Your task to perform on an android device: Open ESPN.com Image 0: 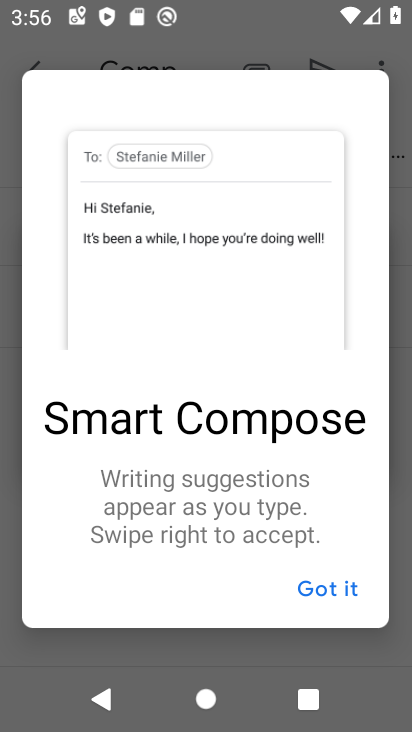
Step 0: press home button
Your task to perform on an android device: Open ESPN.com Image 1: 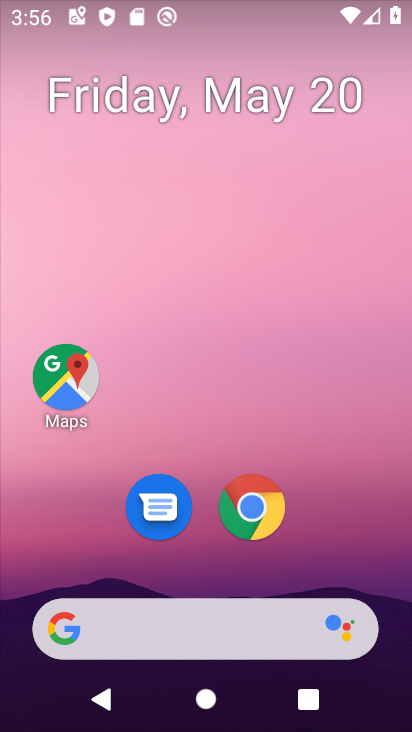
Step 1: click (252, 503)
Your task to perform on an android device: Open ESPN.com Image 2: 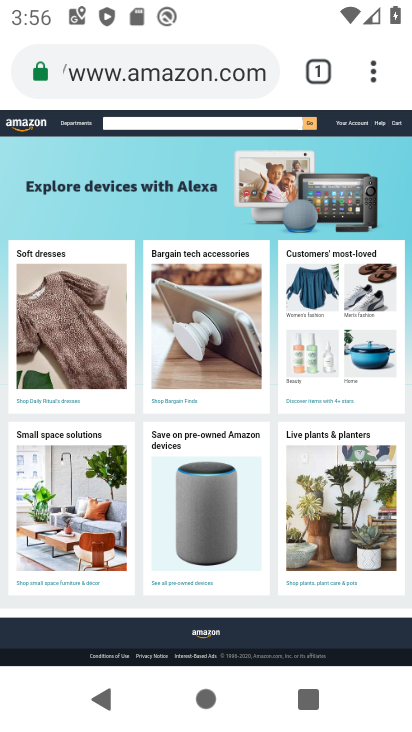
Step 2: click (225, 77)
Your task to perform on an android device: Open ESPN.com Image 3: 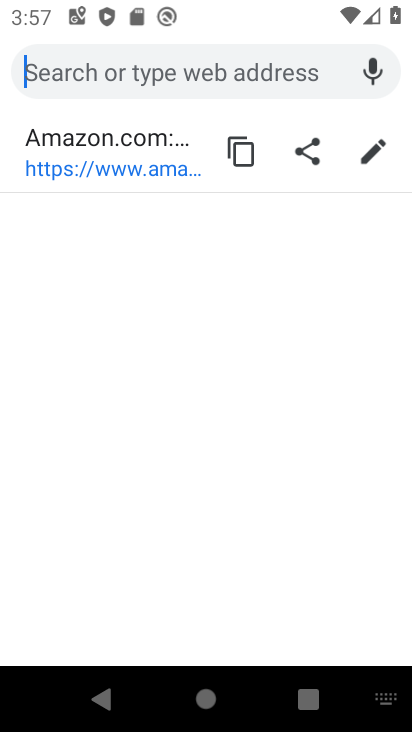
Step 3: type "ESPN.com"
Your task to perform on an android device: Open ESPN.com Image 4: 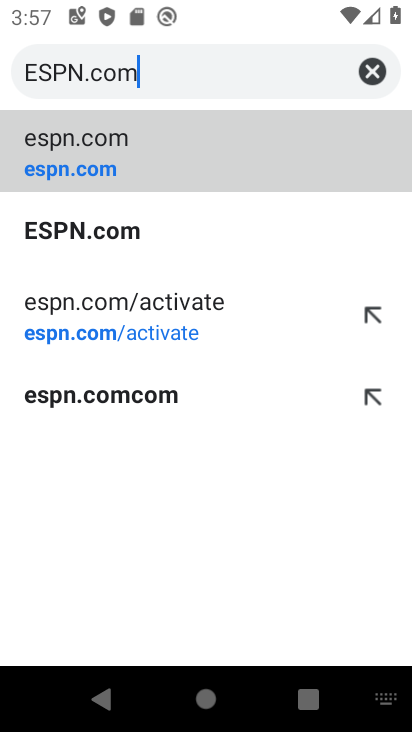
Step 4: click (113, 233)
Your task to perform on an android device: Open ESPN.com Image 5: 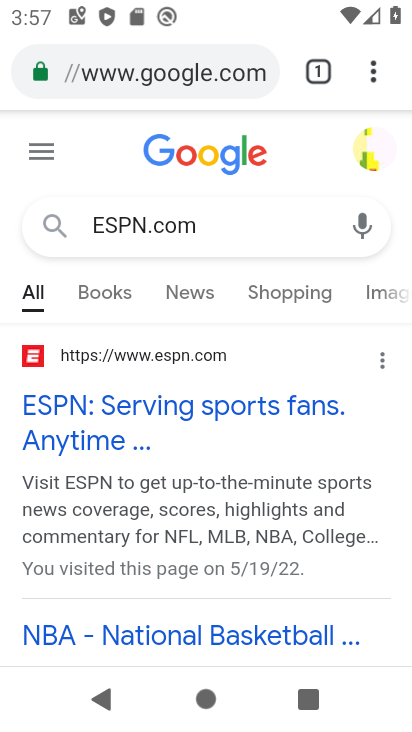
Step 5: click (134, 398)
Your task to perform on an android device: Open ESPN.com Image 6: 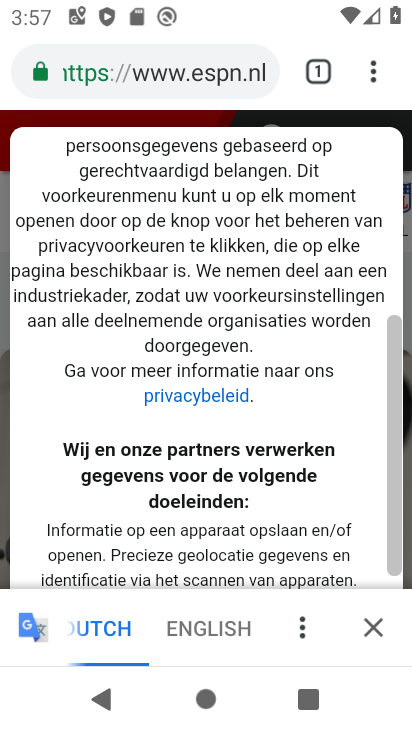
Step 6: task complete